Your task to perform on an android device: change timer sound Image 0: 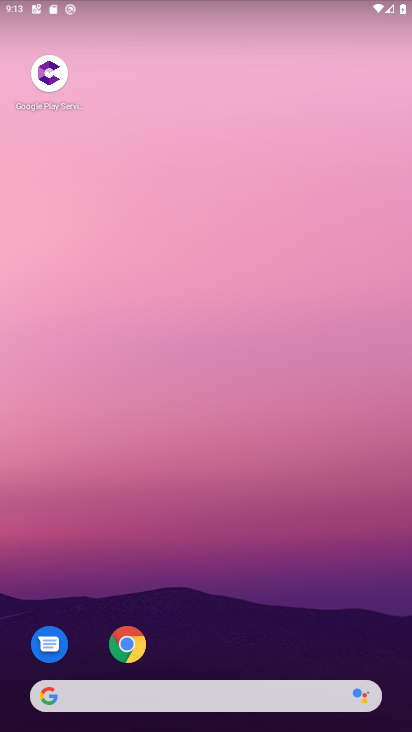
Step 0: drag from (272, 637) to (243, 101)
Your task to perform on an android device: change timer sound Image 1: 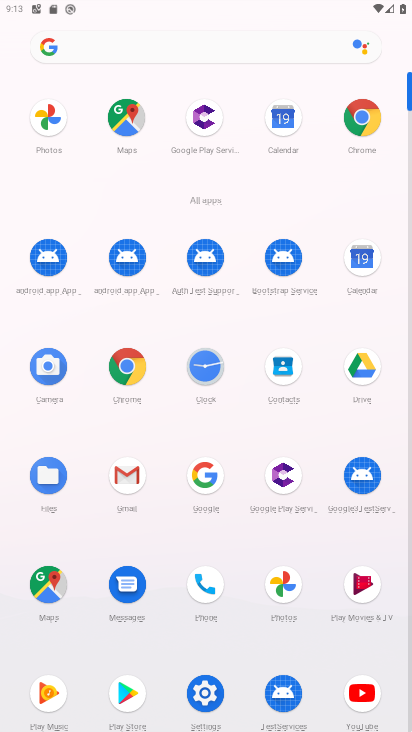
Step 1: click (200, 367)
Your task to perform on an android device: change timer sound Image 2: 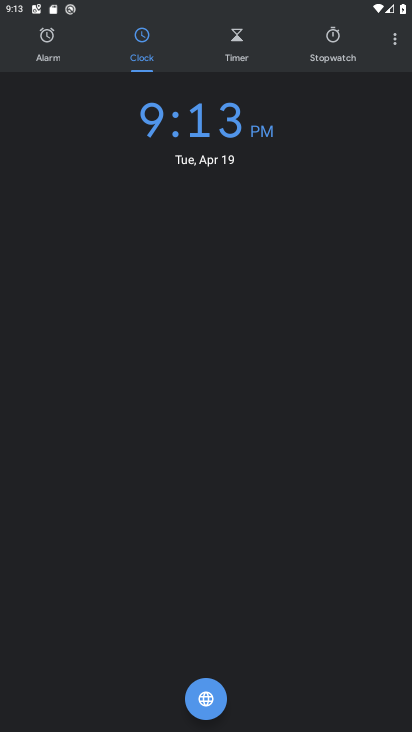
Step 2: click (392, 46)
Your task to perform on an android device: change timer sound Image 3: 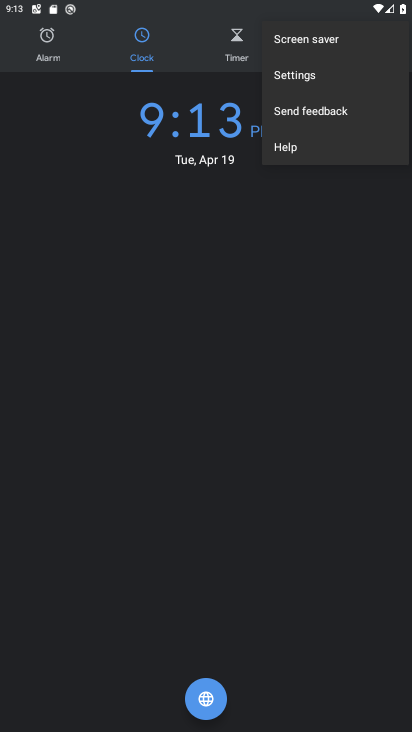
Step 3: click (315, 86)
Your task to perform on an android device: change timer sound Image 4: 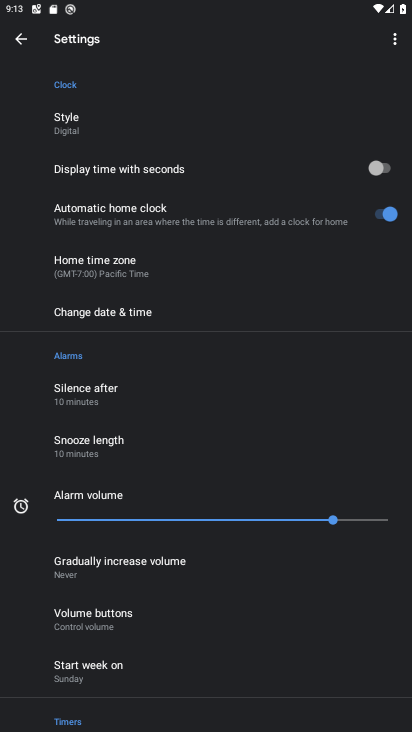
Step 4: drag from (156, 662) to (236, 344)
Your task to perform on an android device: change timer sound Image 5: 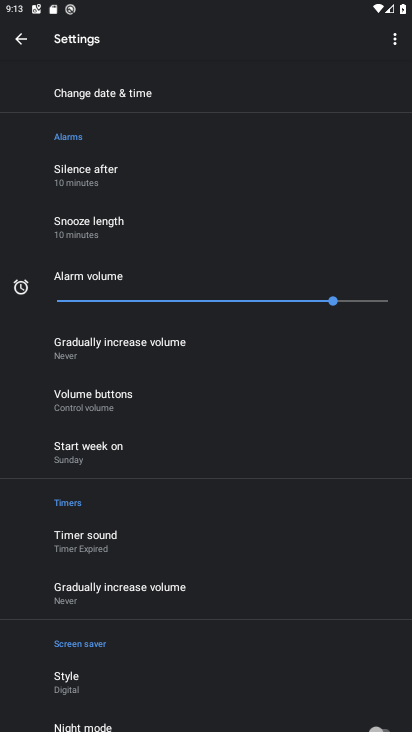
Step 5: click (157, 544)
Your task to perform on an android device: change timer sound Image 6: 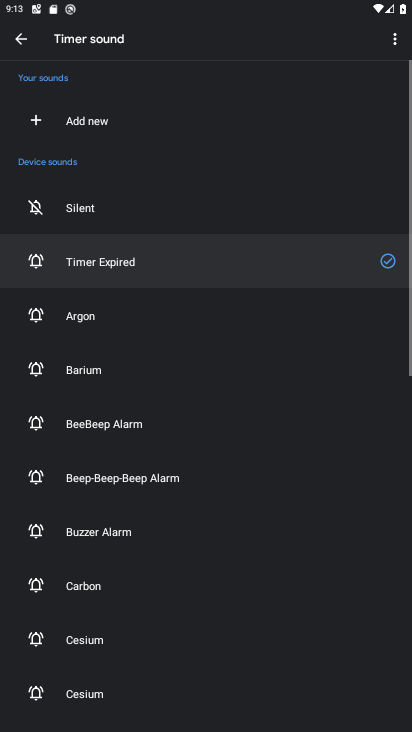
Step 6: click (141, 422)
Your task to perform on an android device: change timer sound Image 7: 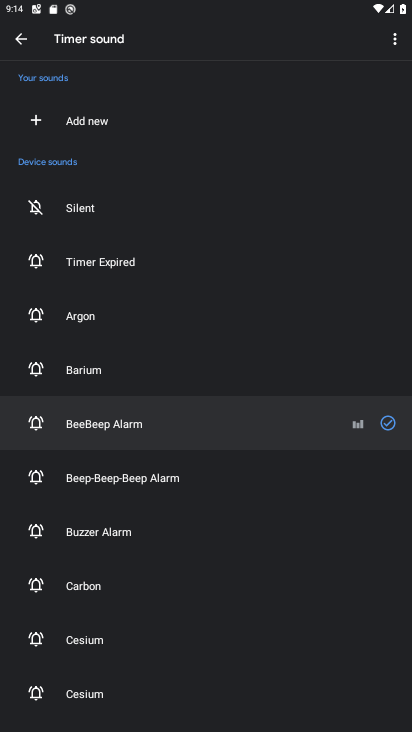
Step 7: task complete